Your task to perform on an android device: choose inbox layout in the gmail app Image 0: 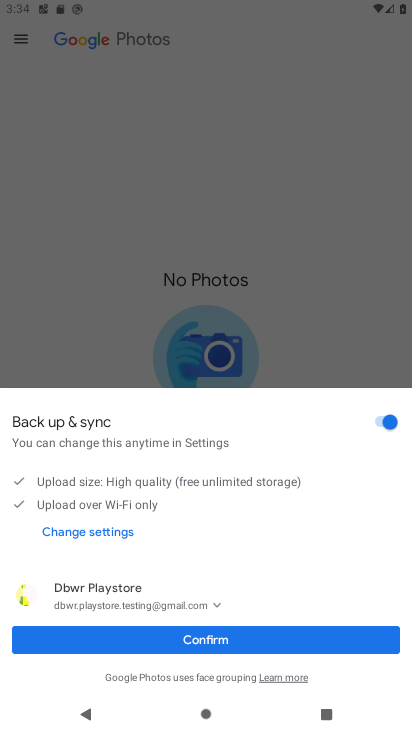
Step 0: press home button
Your task to perform on an android device: choose inbox layout in the gmail app Image 1: 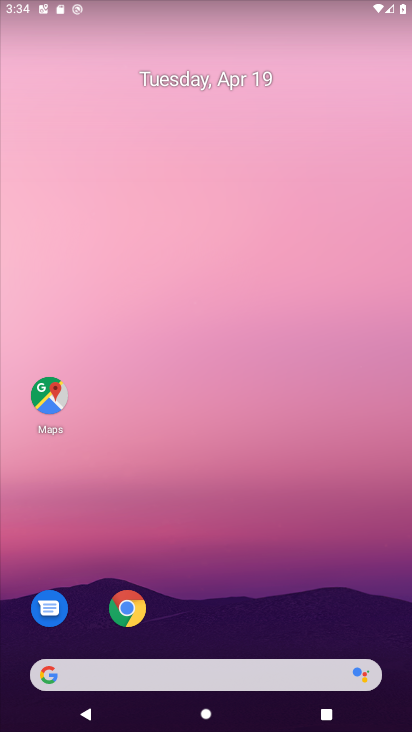
Step 1: drag from (236, 629) to (245, 150)
Your task to perform on an android device: choose inbox layout in the gmail app Image 2: 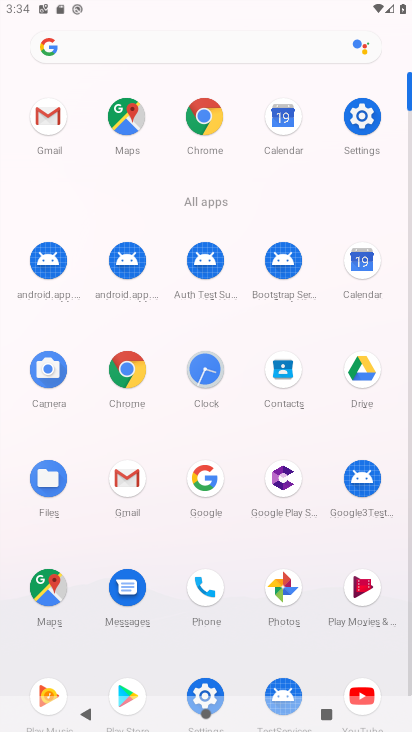
Step 2: click (54, 119)
Your task to perform on an android device: choose inbox layout in the gmail app Image 3: 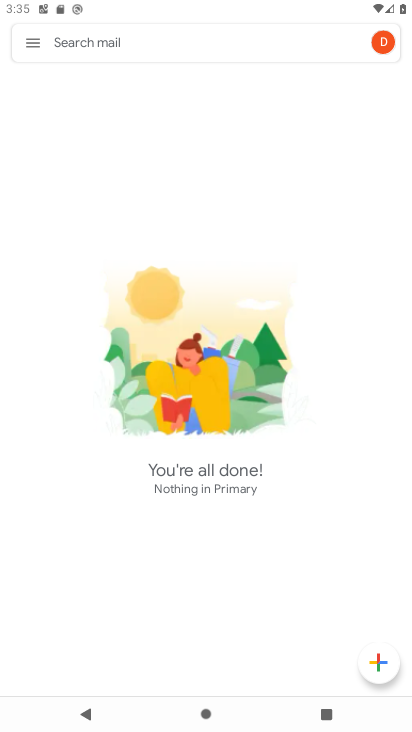
Step 3: click (38, 41)
Your task to perform on an android device: choose inbox layout in the gmail app Image 4: 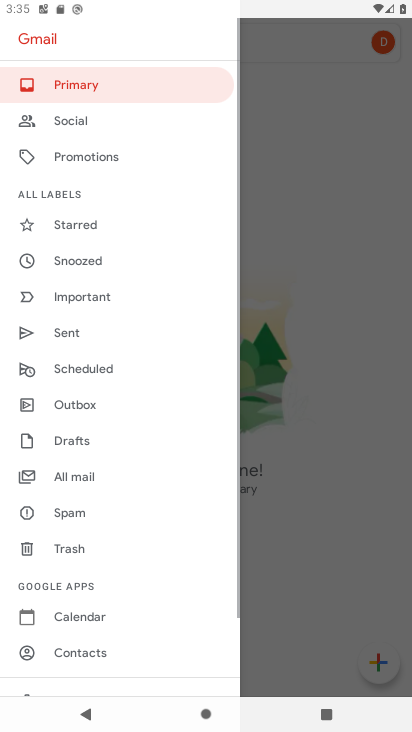
Step 4: drag from (81, 485) to (109, 133)
Your task to perform on an android device: choose inbox layout in the gmail app Image 5: 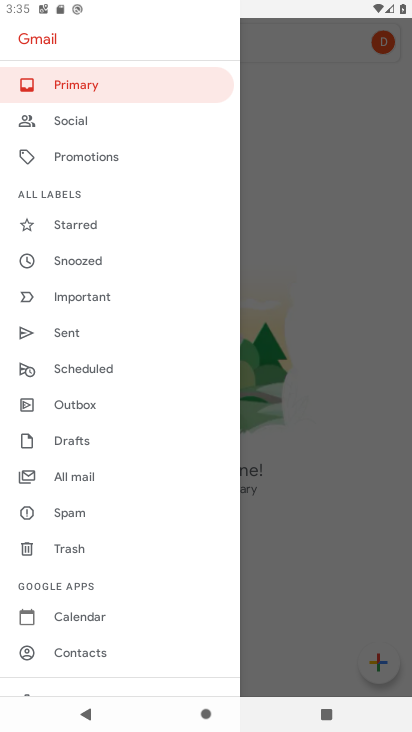
Step 5: drag from (139, 575) to (203, 141)
Your task to perform on an android device: choose inbox layout in the gmail app Image 6: 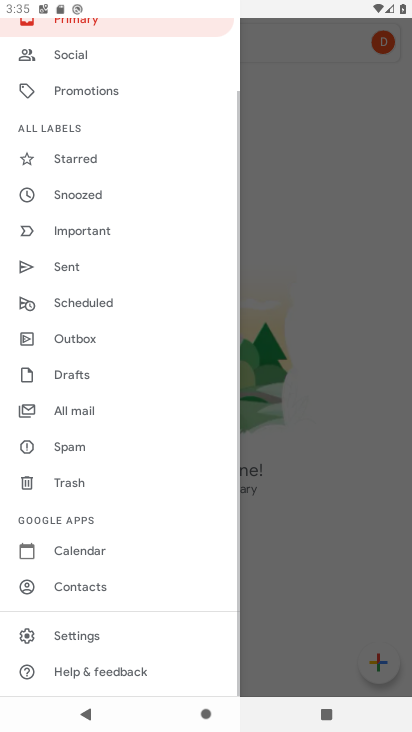
Step 6: click (88, 627)
Your task to perform on an android device: choose inbox layout in the gmail app Image 7: 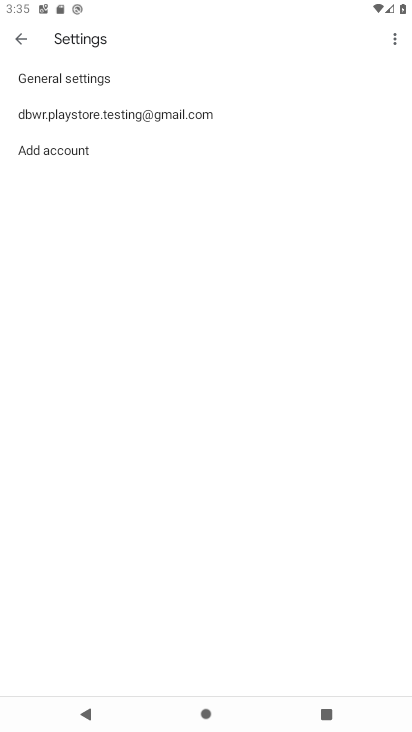
Step 7: click (186, 122)
Your task to perform on an android device: choose inbox layout in the gmail app Image 8: 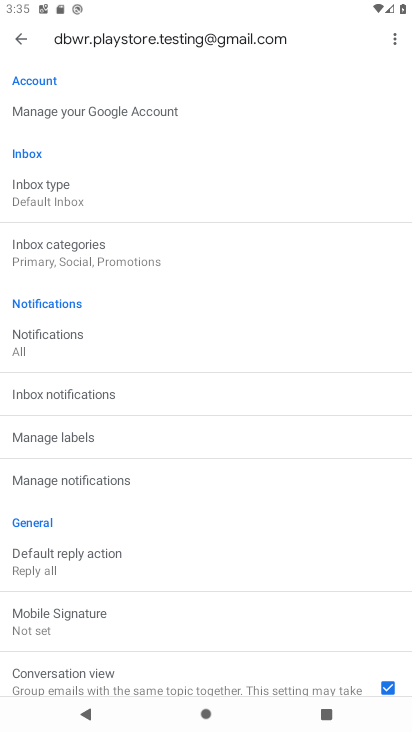
Step 8: click (64, 188)
Your task to perform on an android device: choose inbox layout in the gmail app Image 9: 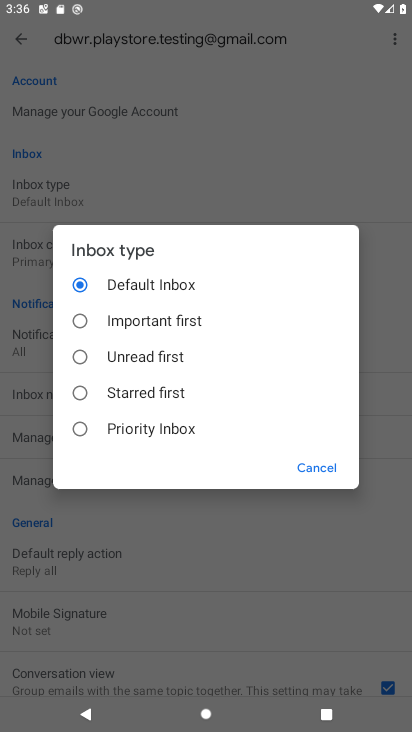
Step 9: task complete